Your task to perform on an android device: turn on airplane mode Image 0: 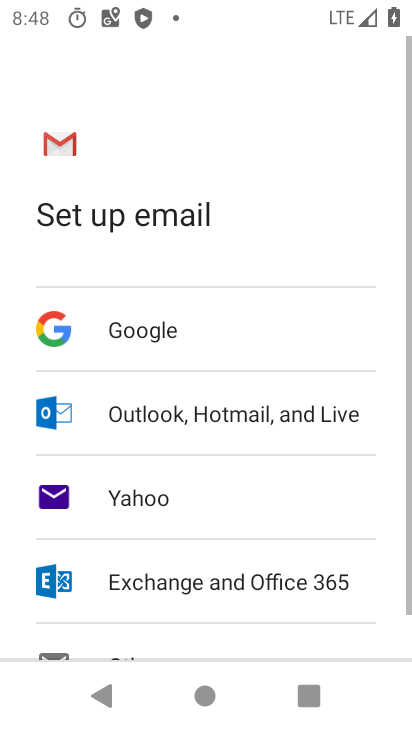
Step 0: press home button
Your task to perform on an android device: turn on airplane mode Image 1: 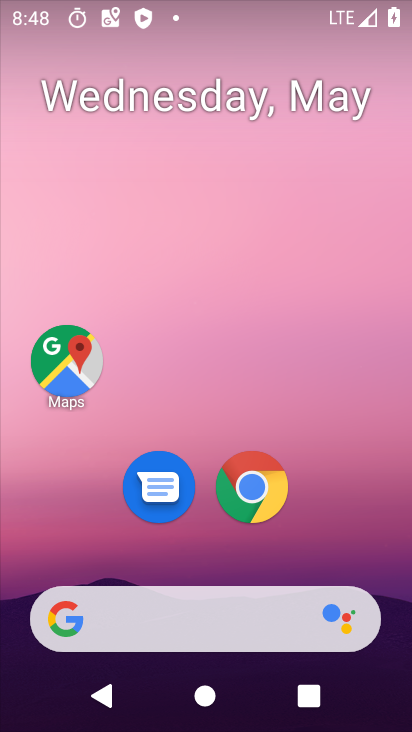
Step 1: drag from (187, 553) to (241, 221)
Your task to perform on an android device: turn on airplane mode Image 2: 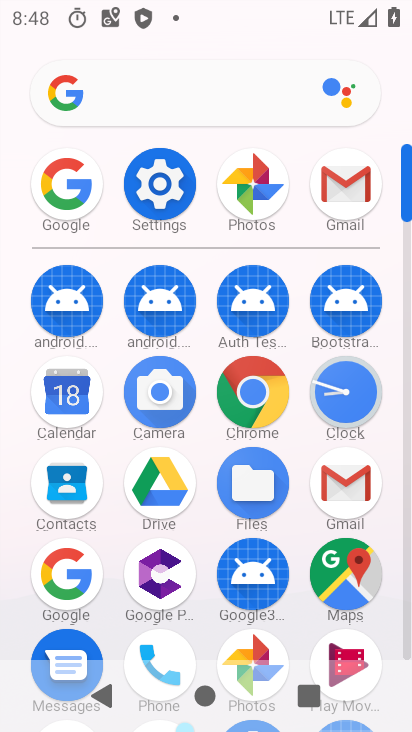
Step 2: click (177, 177)
Your task to perform on an android device: turn on airplane mode Image 3: 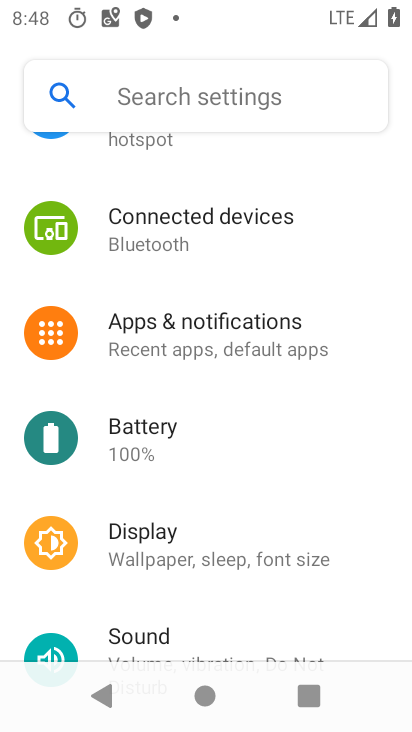
Step 3: drag from (250, 294) to (303, 551)
Your task to perform on an android device: turn on airplane mode Image 4: 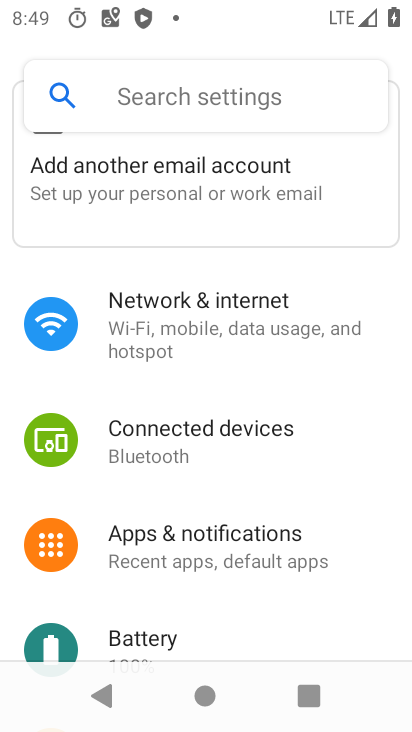
Step 4: click (288, 335)
Your task to perform on an android device: turn on airplane mode Image 5: 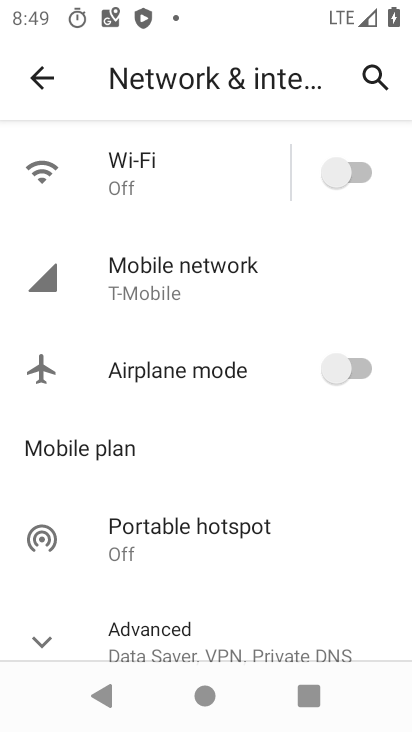
Step 5: click (353, 378)
Your task to perform on an android device: turn on airplane mode Image 6: 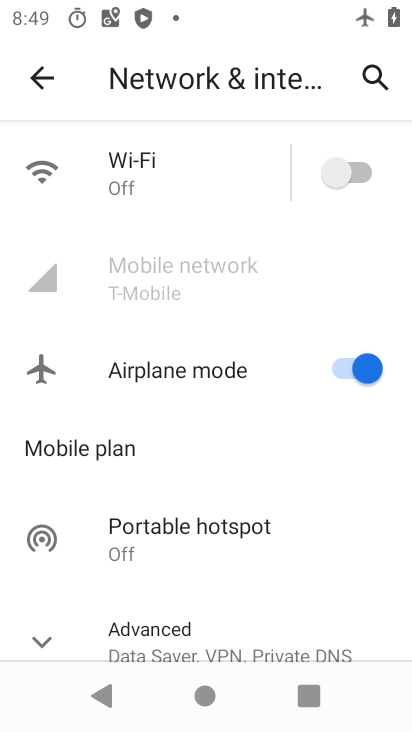
Step 6: task complete